Your task to perform on an android device: Show me productivity apps on the Play Store Image 0: 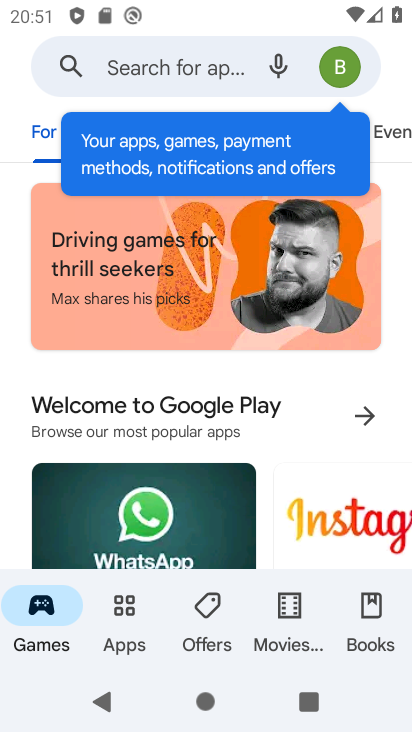
Step 0: click (122, 608)
Your task to perform on an android device: Show me productivity apps on the Play Store Image 1: 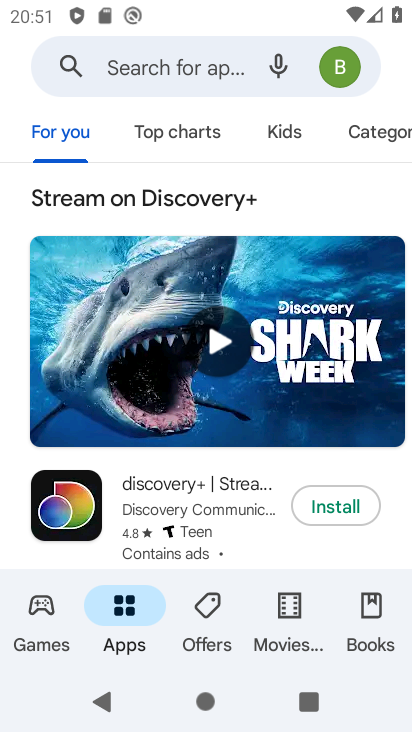
Step 1: click (369, 131)
Your task to perform on an android device: Show me productivity apps on the Play Store Image 2: 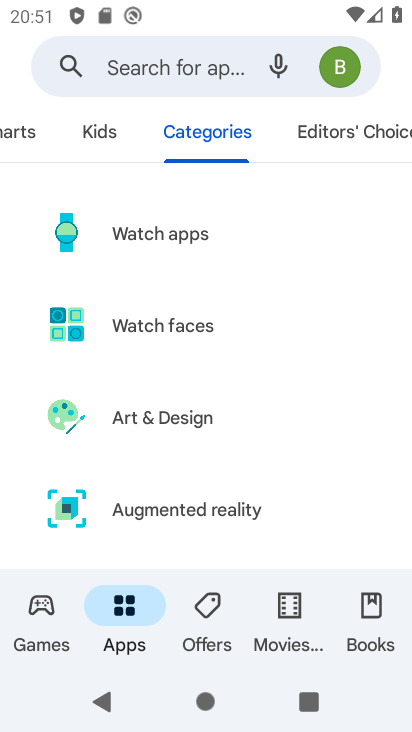
Step 2: drag from (271, 529) to (406, 9)
Your task to perform on an android device: Show me productivity apps on the Play Store Image 3: 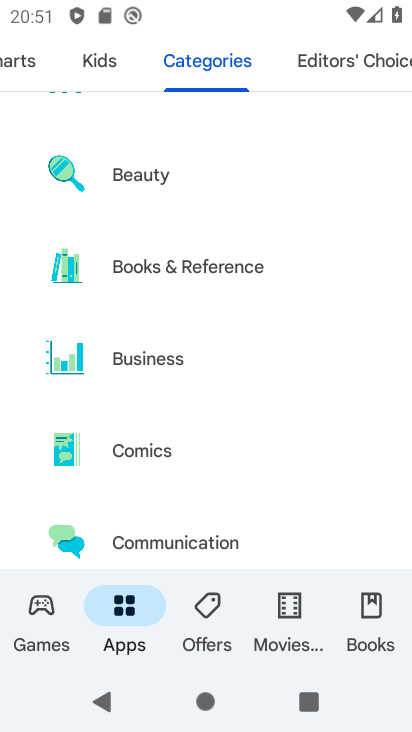
Step 3: drag from (291, 488) to (407, 89)
Your task to perform on an android device: Show me productivity apps on the Play Store Image 4: 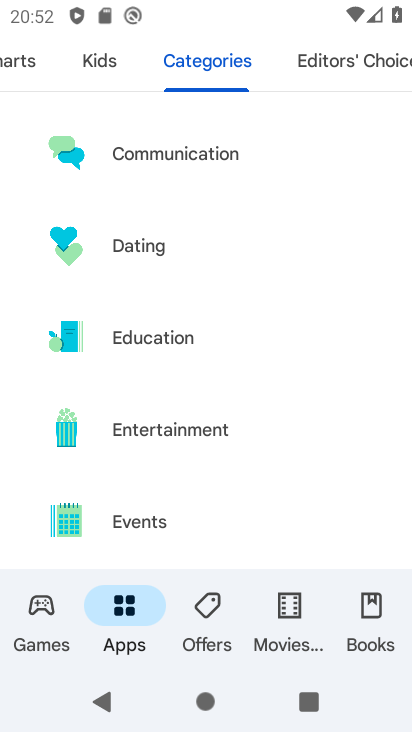
Step 4: drag from (267, 466) to (342, 153)
Your task to perform on an android device: Show me productivity apps on the Play Store Image 5: 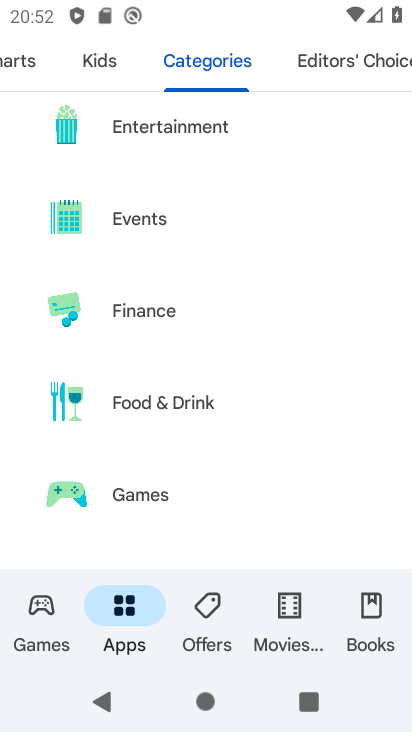
Step 5: drag from (246, 516) to (378, 55)
Your task to perform on an android device: Show me productivity apps on the Play Store Image 6: 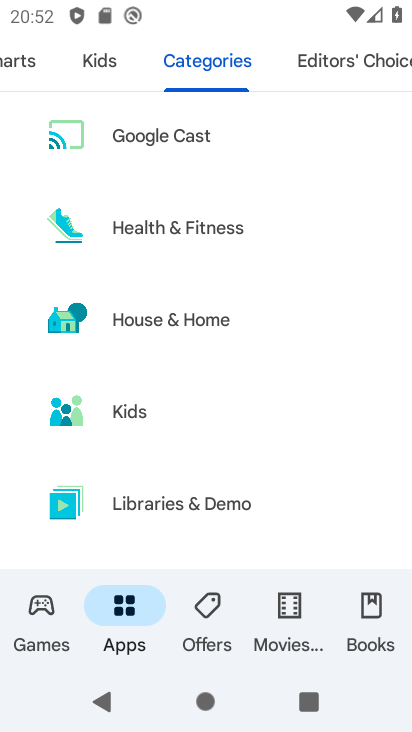
Step 6: drag from (260, 458) to (376, 103)
Your task to perform on an android device: Show me productivity apps on the Play Store Image 7: 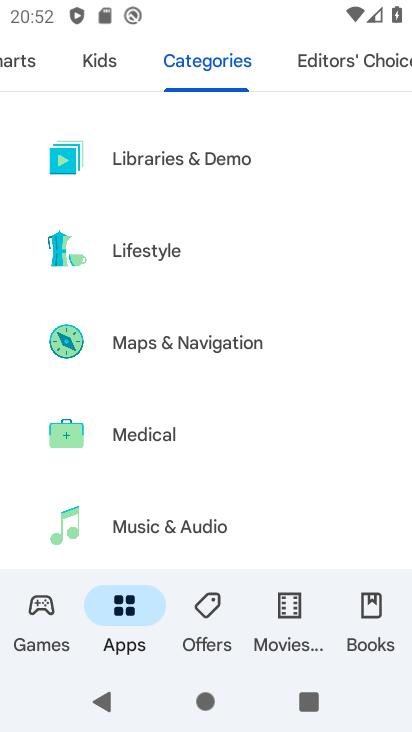
Step 7: drag from (298, 501) to (379, 166)
Your task to perform on an android device: Show me productivity apps on the Play Store Image 8: 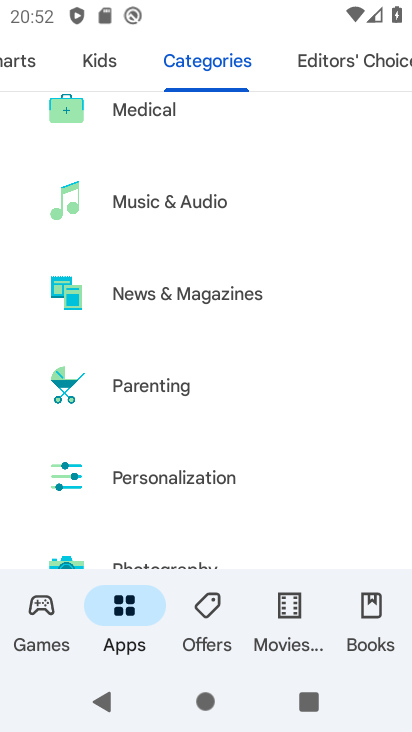
Step 8: drag from (300, 504) to (383, 109)
Your task to perform on an android device: Show me productivity apps on the Play Store Image 9: 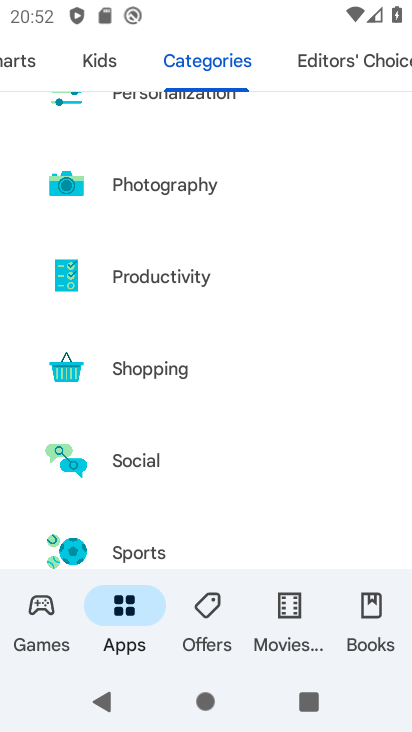
Step 9: click (189, 275)
Your task to perform on an android device: Show me productivity apps on the Play Store Image 10: 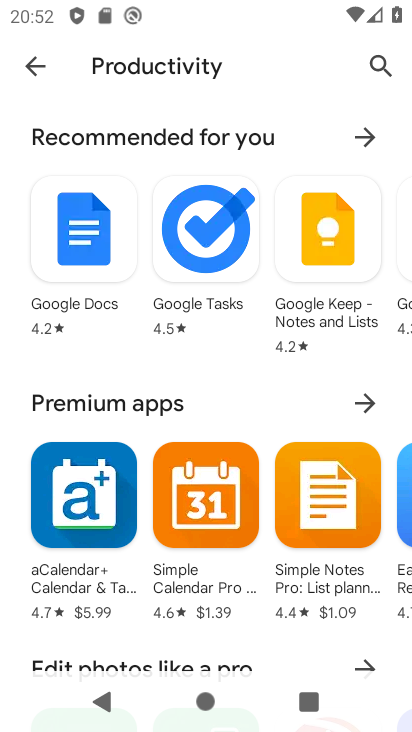
Step 10: task complete